Your task to perform on an android device: clear all cookies in the chrome app Image 0: 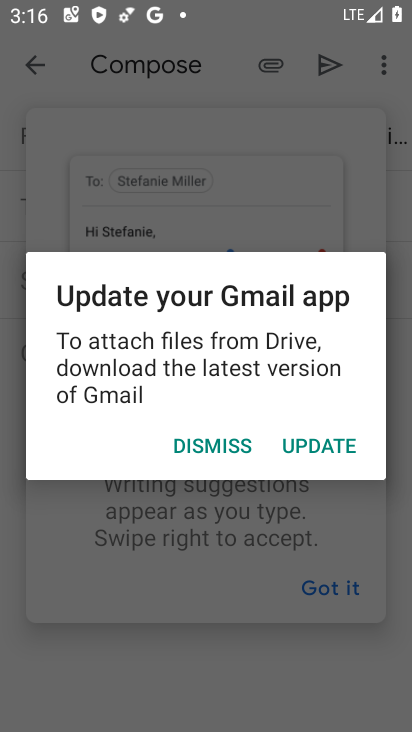
Step 0: press home button
Your task to perform on an android device: clear all cookies in the chrome app Image 1: 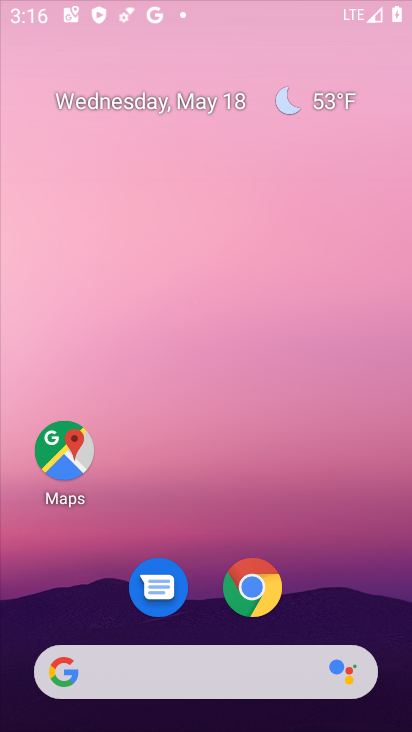
Step 1: drag from (248, 470) to (256, 235)
Your task to perform on an android device: clear all cookies in the chrome app Image 2: 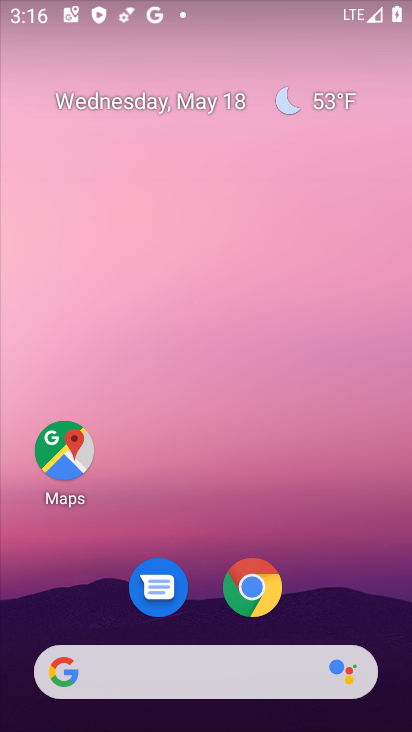
Step 2: drag from (255, 550) to (265, 282)
Your task to perform on an android device: clear all cookies in the chrome app Image 3: 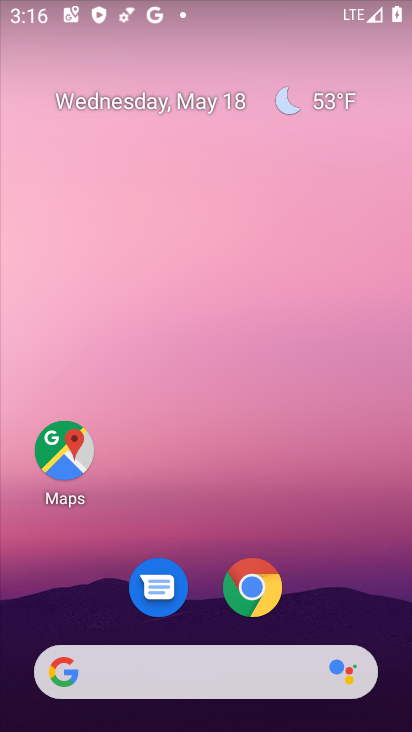
Step 3: click (271, 603)
Your task to perform on an android device: clear all cookies in the chrome app Image 4: 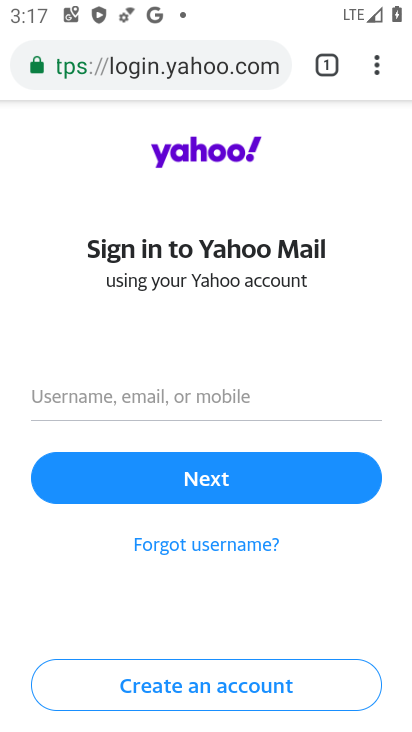
Step 4: click (379, 74)
Your task to perform on an android device: clear all cookies in the chrome app Image 5: 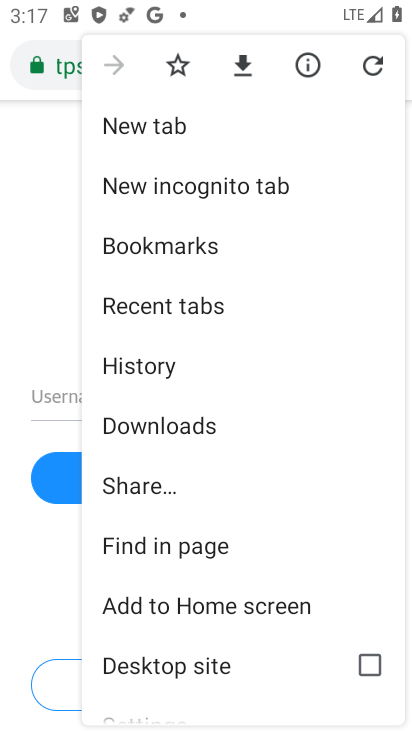
Step 5: drag from (228, 518) to (259, 418)
Your task to perform on an android device: clear all cookies in the chrome app Image 6: 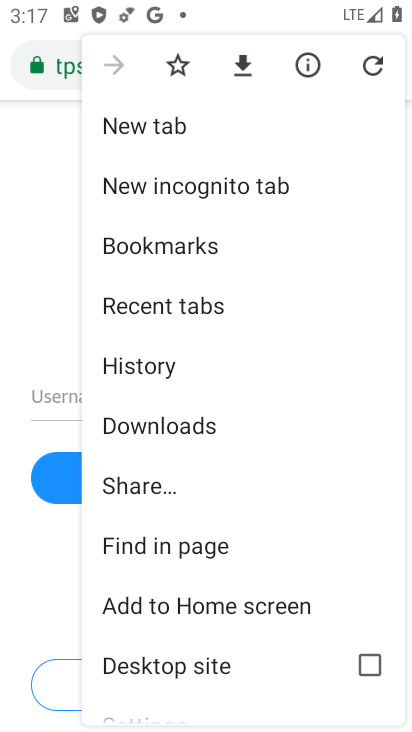
Step 6: click (130, 365)
Your task to perform on an android device: clear all cookies in the chrome app Image 7: 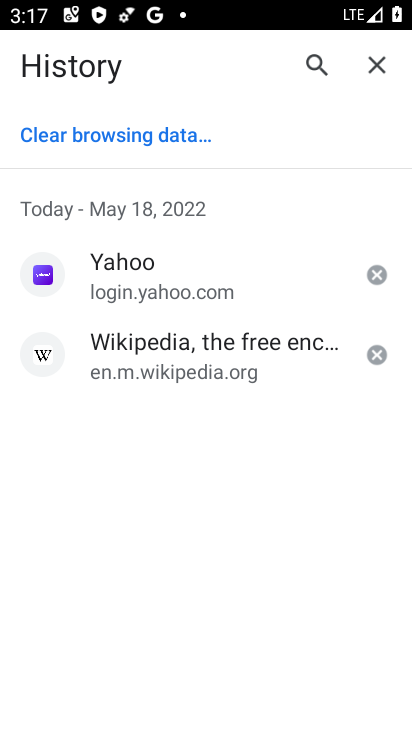
Step 7: click (170, 143)
Your task to perform on an android device: clear all cookies in the chrome app Image 8: 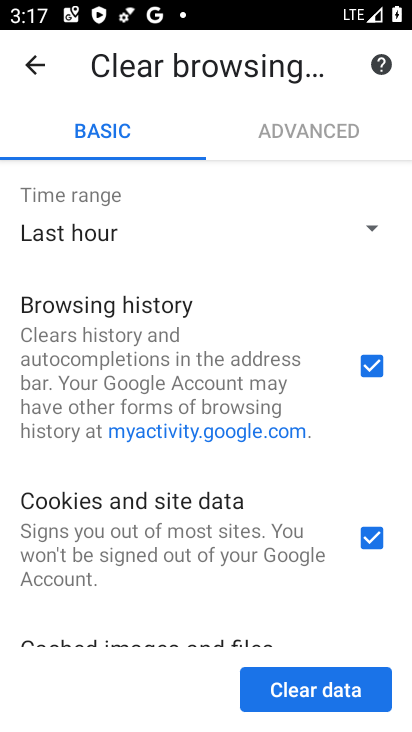
Step 8: click (373, 361)
Your task to perform on an android device: clear all cookies in the chrome app Image 9: 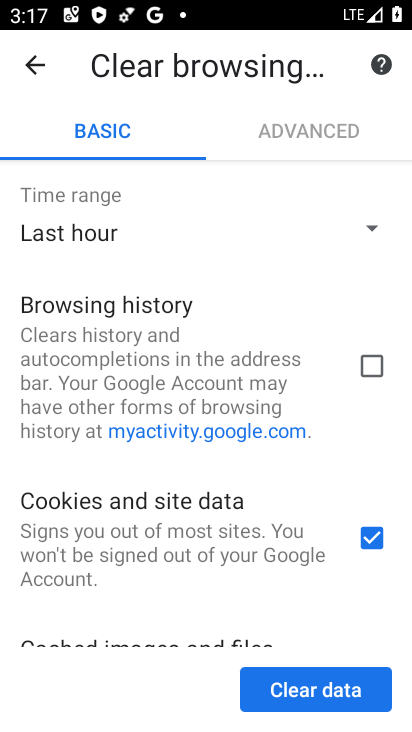
Step 9: click (338, 701)
Your task to perform on an android device: clear all cookies in the chrome app Image 10: 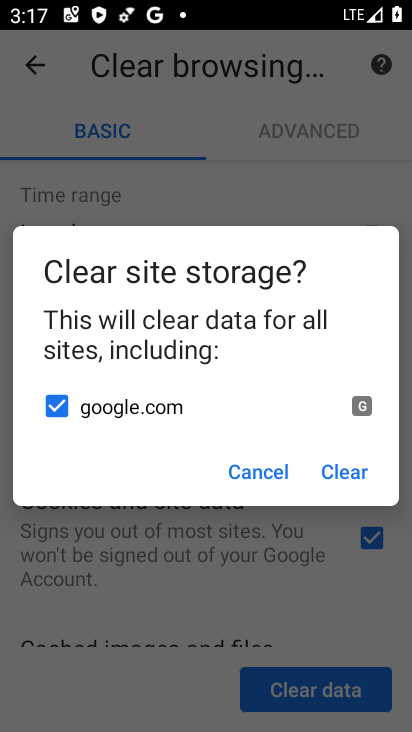
Step 10: task complete